Your task to perform on an android device: Show me popular games on the Play Store Image 0: 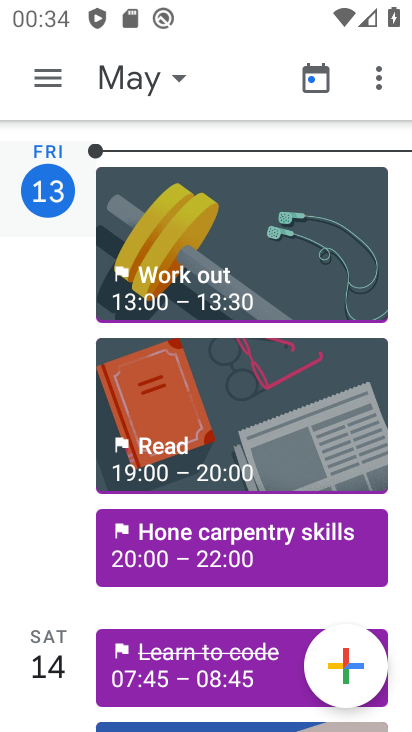
Step 0: press home button
Your task to perform on an android device: Show me popular games on the Play Store Image 1: 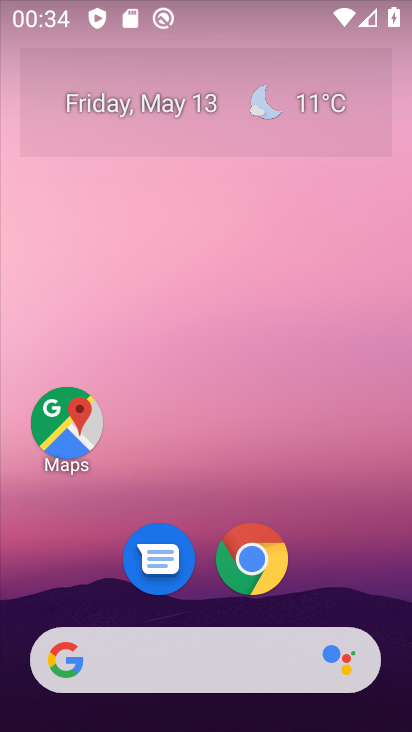
Step 1: drag from (316, 563) to (311, 117)
Your task to perform on an android device: Show me popular games on the Play Store Image 2: 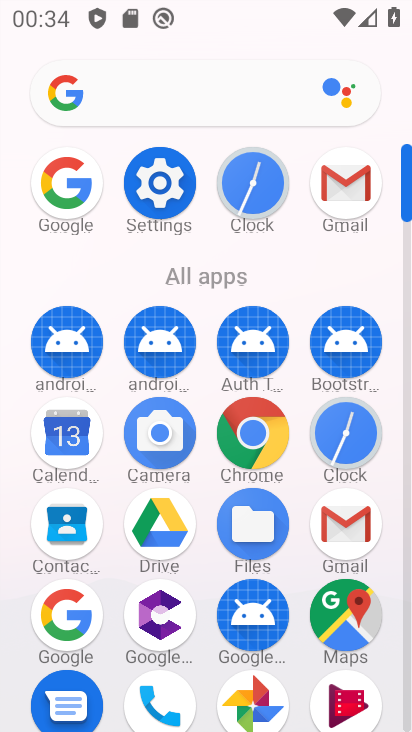
Step 2: drag from (202, 566) to (238, 181)
Your task to perform on an android device: Show me popular games on the Play Store Image 3: 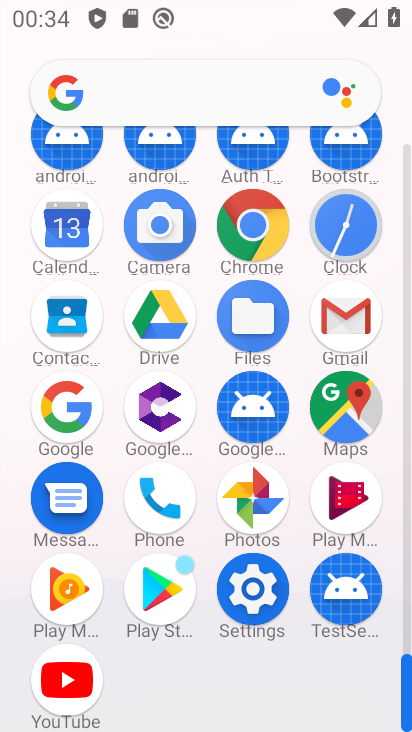
Step 3: click (163, 600)
Your task to perform on an android device: Show me popular games on the Play Store Image 4: 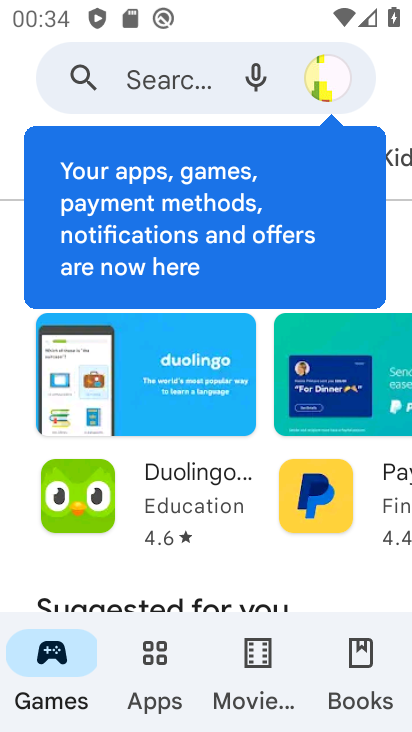
Step 4: drag from (228, 532) to (239, 416)
Your task to perform on an android device: Show me popular games on the Play Store Image 5: 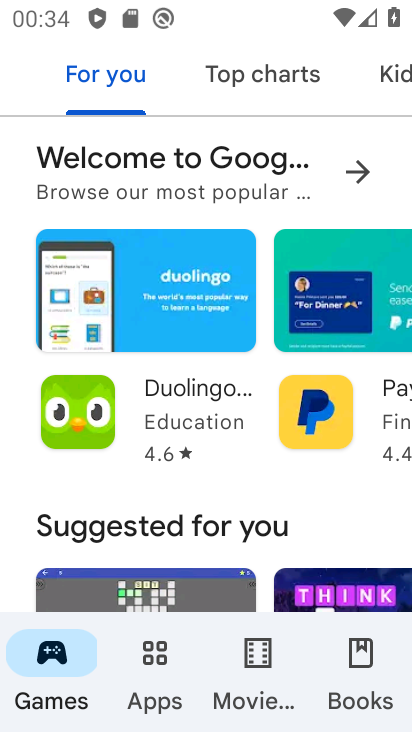
Step 5: drag from (216, 506) to (255, 53)
Your task to perform on an android device: Show me popular games on the Play Store Image 6: 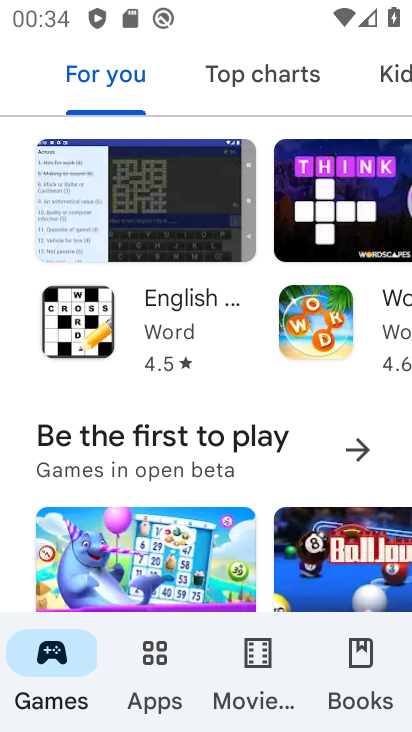
Step 6: drag from (265, 499) to (301, 660)
Your task to perform on an android device: Show me popular games on the Play Store Image 7: 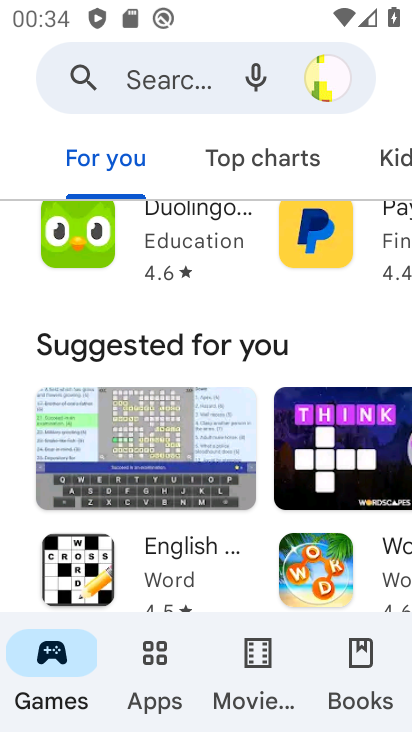
Step 7: drag from (260, 302) to (303, 625)
Your task to perform on an android device: Show me popular games on the Play Store Image 8: 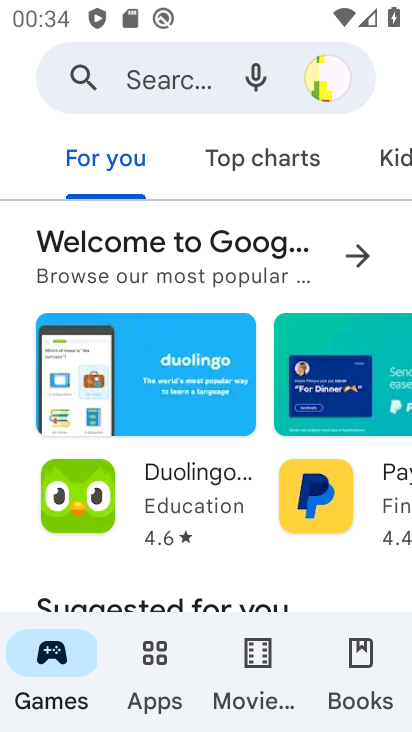
Step 8: click (292, 247)
Your task to perform on an android device: Show me popular games on the Play Store Image 9: 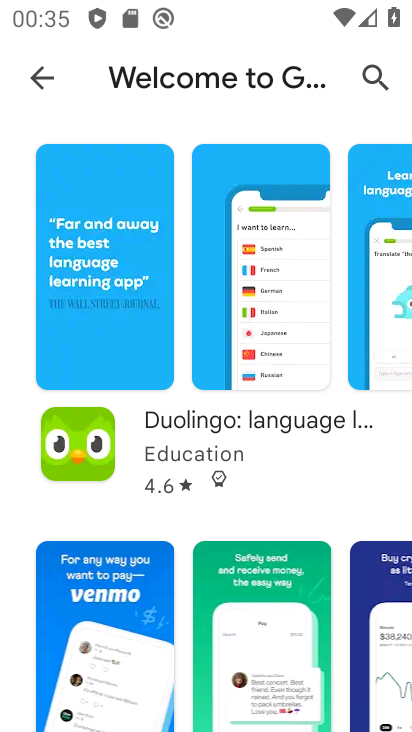
Step 9: task complete